Your task to perform on an android device: Open wifi settings Image 0: 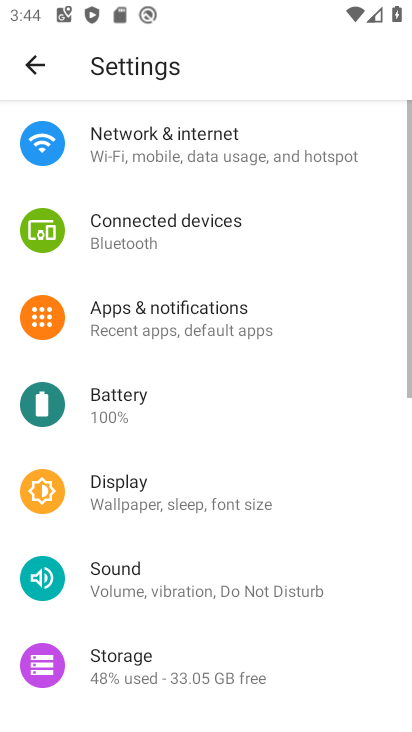
Step 0: click (226, 156)
Your task to perform on an android device: Open wifi settings Image 1: 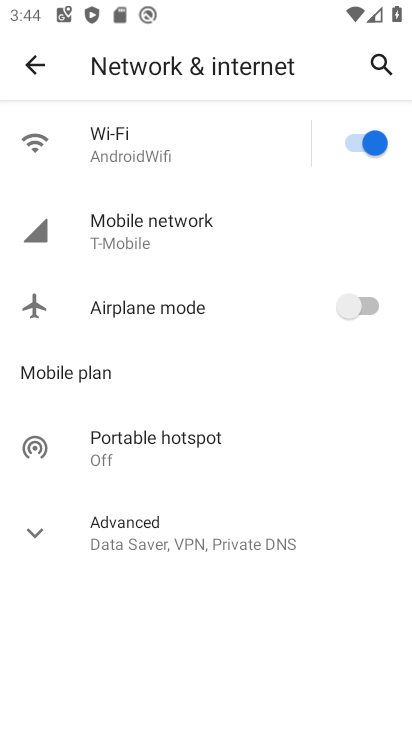
Step 1: click (189, 148)
Your task to perform on an android device: Open wifi settings Image 2: 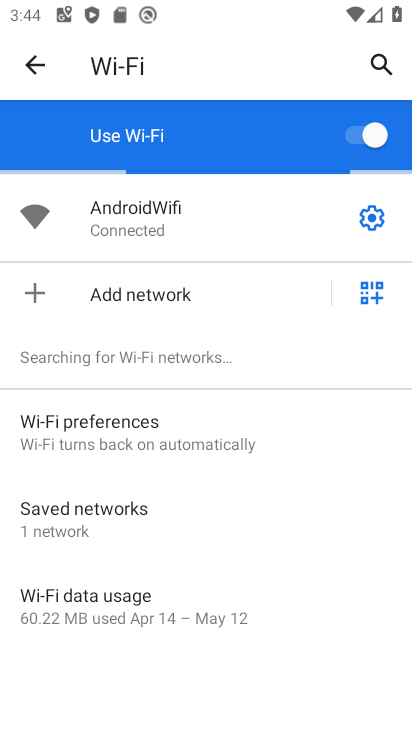
Step 2: task complete